Your task to perform on an android device: Check the news Image 0: 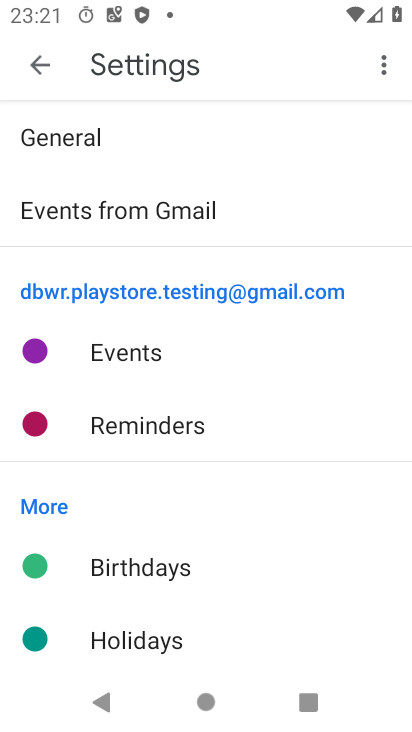
Step 0: click (411, 515)
Your task to perform on an android device: Check the news Image 1: 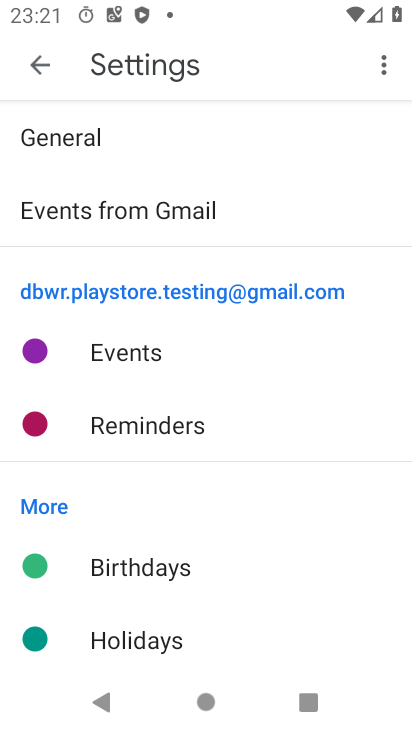
Step 1: press home button
Your task to perform on an android device: Check the news Image 2: 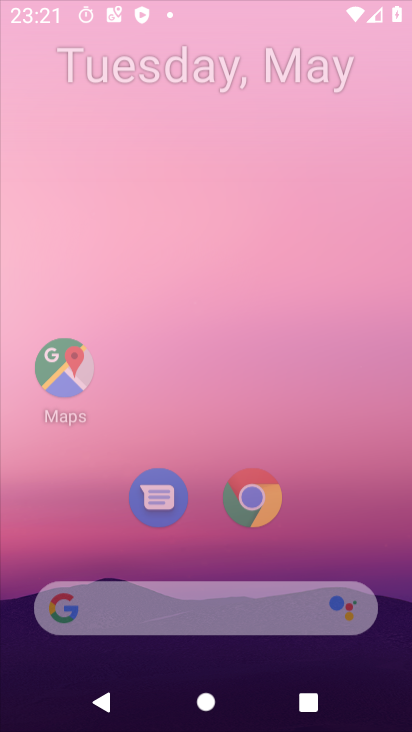
Step 2: drag from (236, 639) to (248, 211)
Your task to perform on an android device: Check the news Image 3: 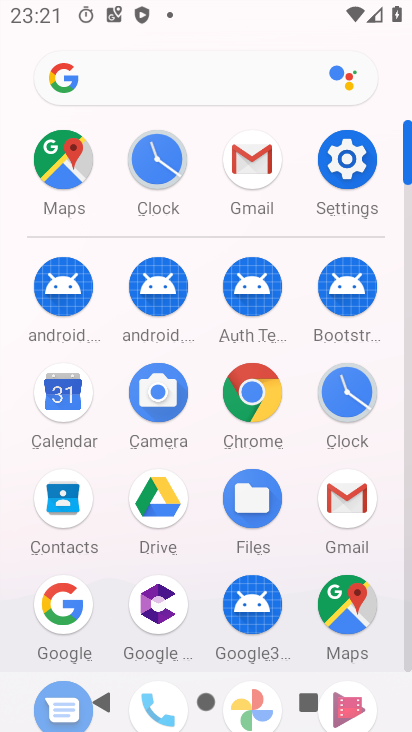
Step 3: click (144, 53)
Your task to perform on an android device: Check the news Image 4: 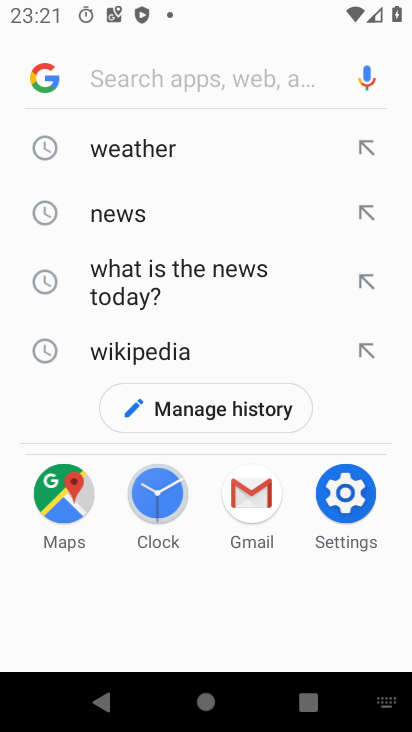
Step 4: click (117, 213)
Your task to perform on an android device: Check the news Image 5: 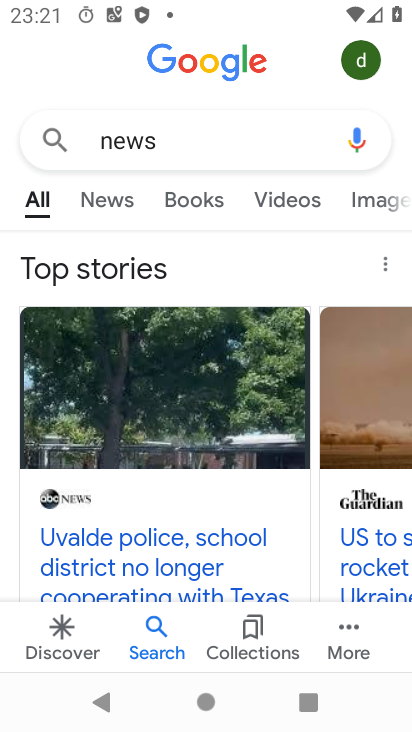
Step 5: task complete